Your task to perform on an android device: turn off notifications settings in the gmail app Image 0: 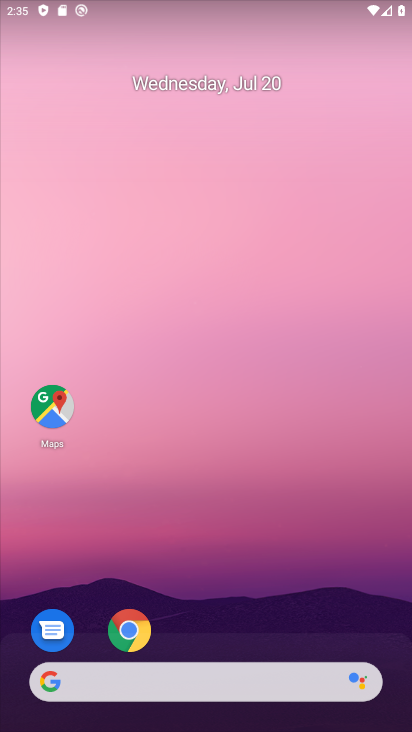
Step 0: drag from (299, 605) to (277, 161)
Your task to perform on an android device: turn off notifications settings in the gmail app Image 1: 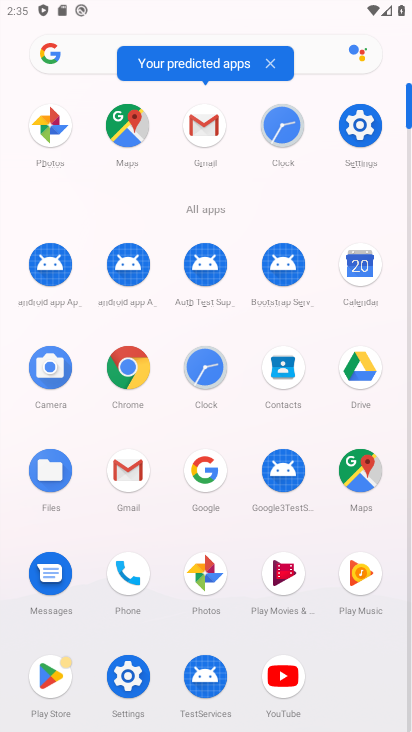
Step 1: click (113, 470)
Your task to perform on an android device: turn off notifications settings in the gmail app Image 2: 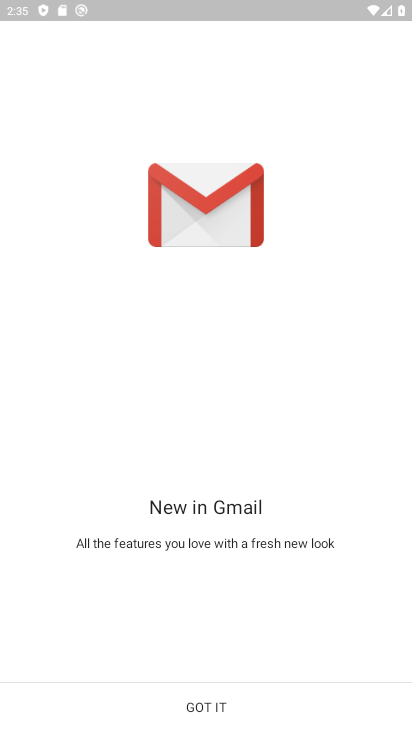
Step 2: click (171, 711)
Your task to perform on an android device: turn off notifications settings in the gmail app Image 3: 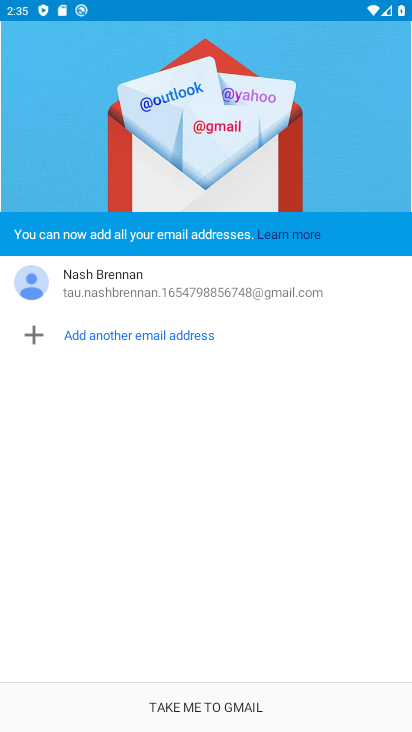
Step 3: click (231, 695)
Your task to perform on an android device: turn off notifications settings in the gmail app Image 4: 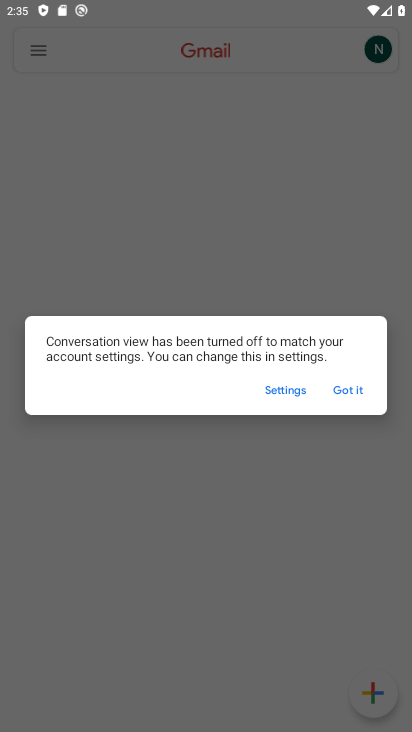
Step 4: click (344, 395)
Your task to perform on an android device: turn off notifications settings in the gmail app Image 5: 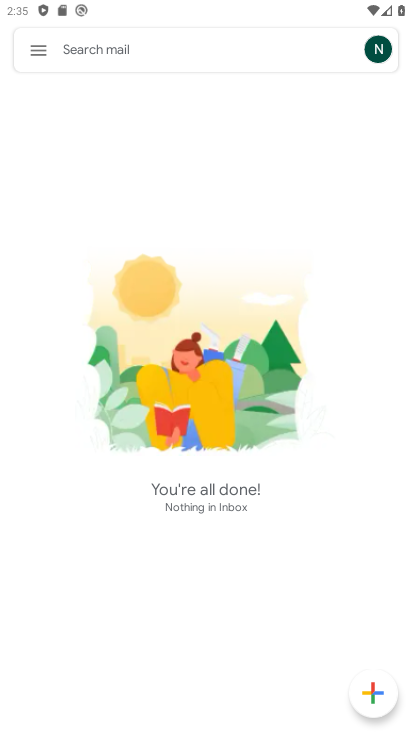
Step 5: click (48, 44)
Your task to perform on an android device: turn off notifications settings in the gmail app Image 6: 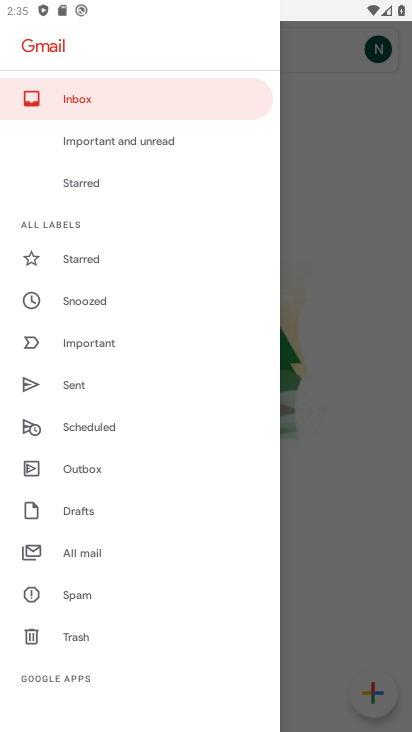
Step 6: drag from (99, 620) to (111, 355)
Your task to perform on an android device: turn off notifications settings in the gmail app Image 7: 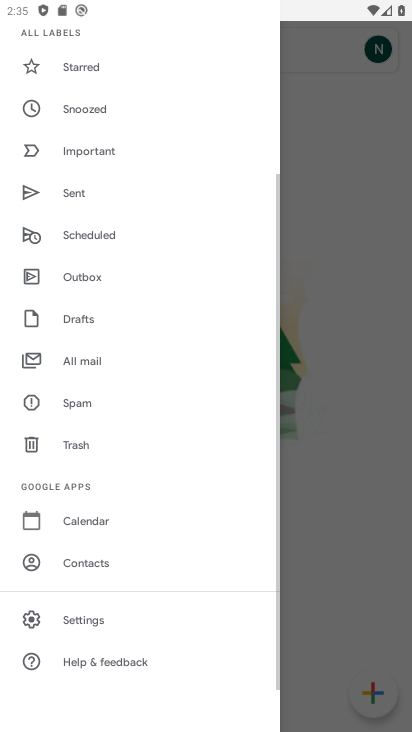
Step 7: click (139, 615)
Your task to perform on an android device: turn off notifications settings in the gmail app Image 8: 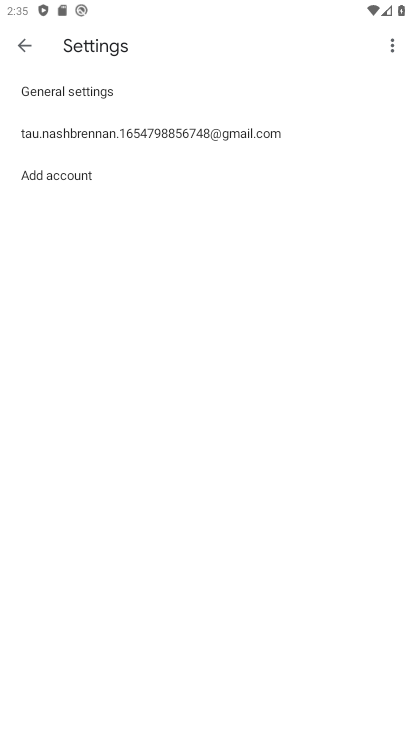
Step 8: click (216, 144)
Your task to perform on an android device: turn off notifications settings in the gmail app Image 9: 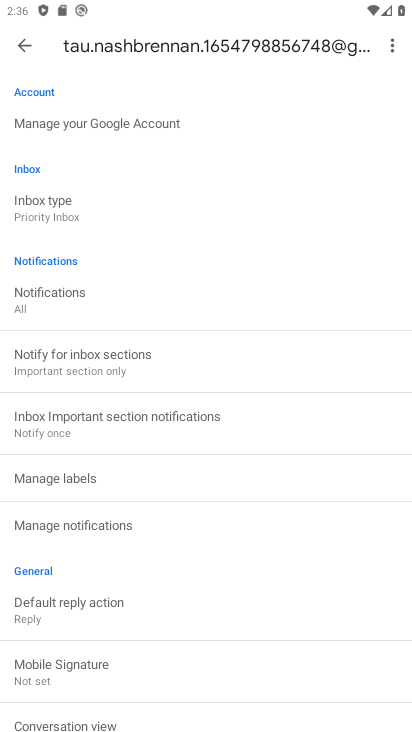
Step 9: click (113, 523)
Your task to perform on an android device: turn off notifications settings in the gmail app Image 10: 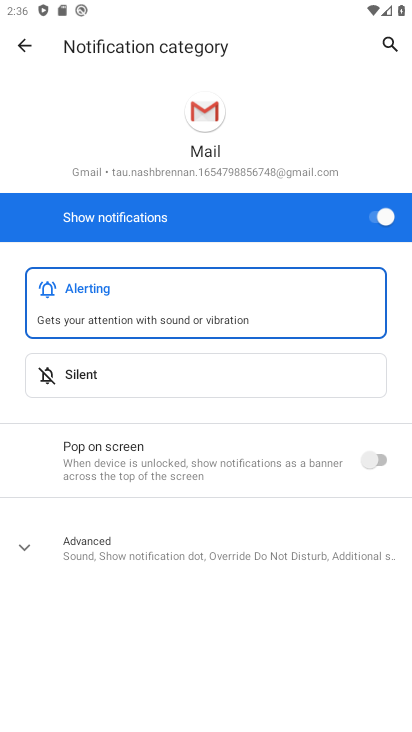
Step 10: click (374, 225)
Your task to perform on an android device: turn off notifications settings in the gmail app Image 11: 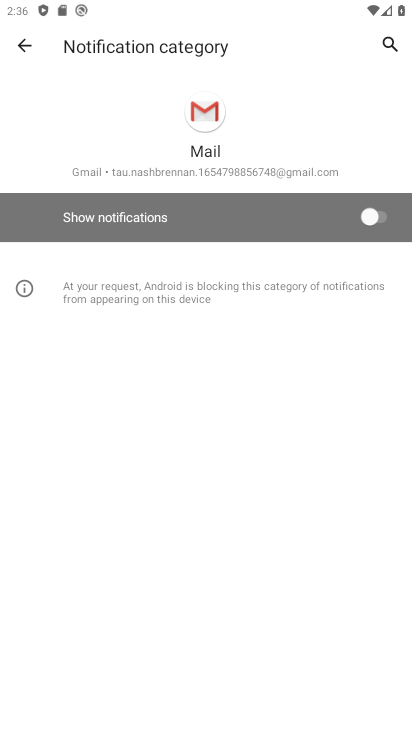
Step 11: task complete